Your task to perform on an android device: clear all cookies in the chrome app Image 0: 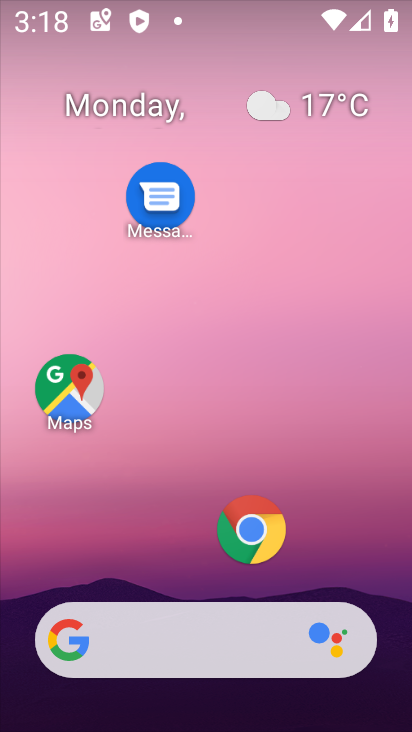
Step 0: click (223, 364)
Your task to perform on an android device: clear all cookies in the chrome app Image 1: 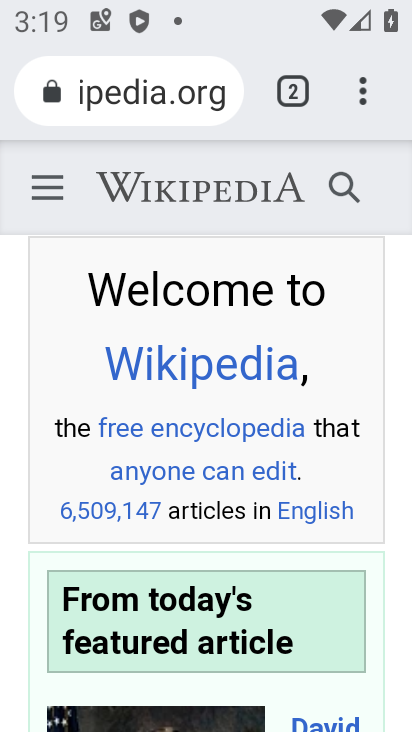
Step 1: click (362, 84)
Your task to perform on an android device: clear all cookies in the chrome app Image 2: 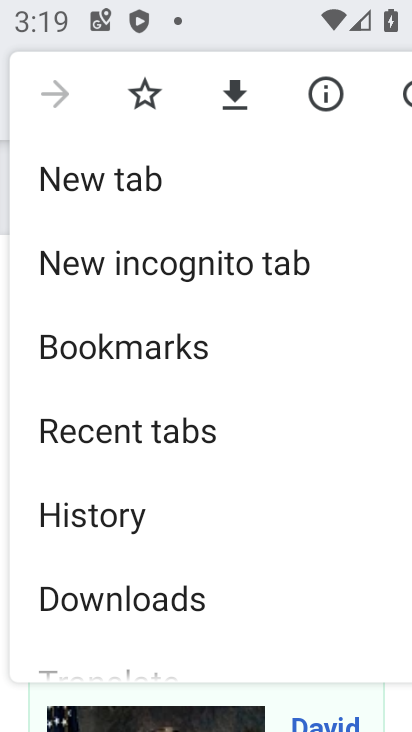
Step 2: click (168, 516)
Your task to perform on an android device: clear all cookies in the chrome app Image 3: 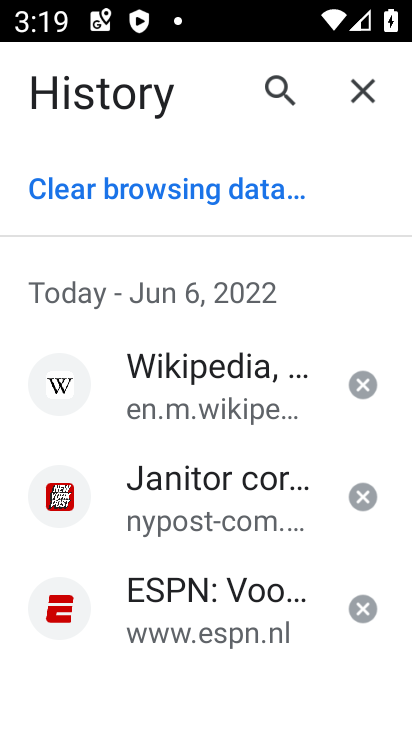
Step 3: click (158, 188)
Your task to perform on an android device: clear all cookies in the chrome app Image 4: 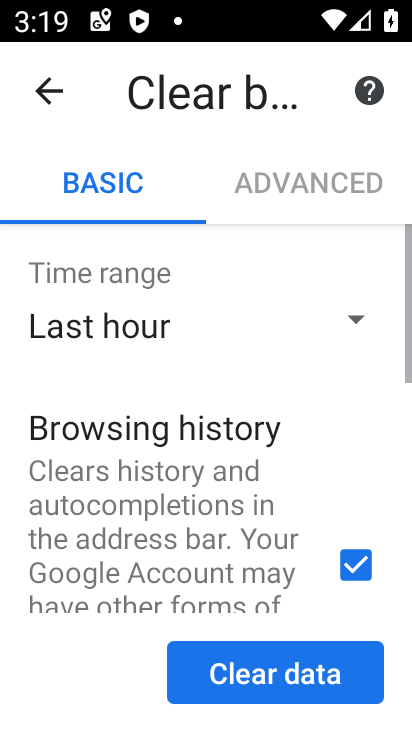
Step 4: drag from (277, 552) to (340, 232)
Your task to perform on an android device: clear all cookies in the chrome app Image 5: 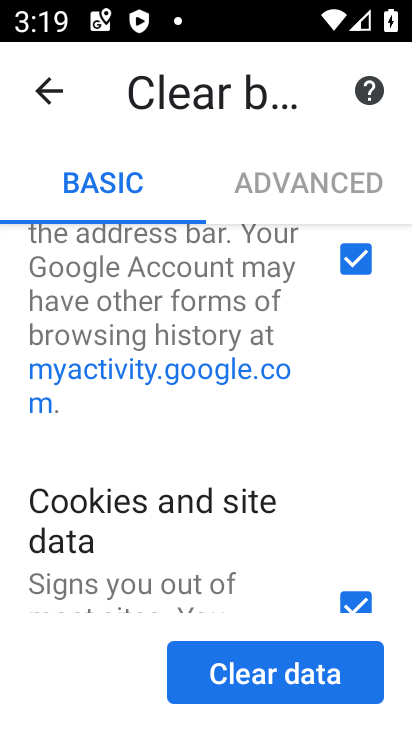
Step 5: drag from (242, 553) to (257, 222)
Your task to perform on an android device: clear all cookies in the chrome app Image 6: 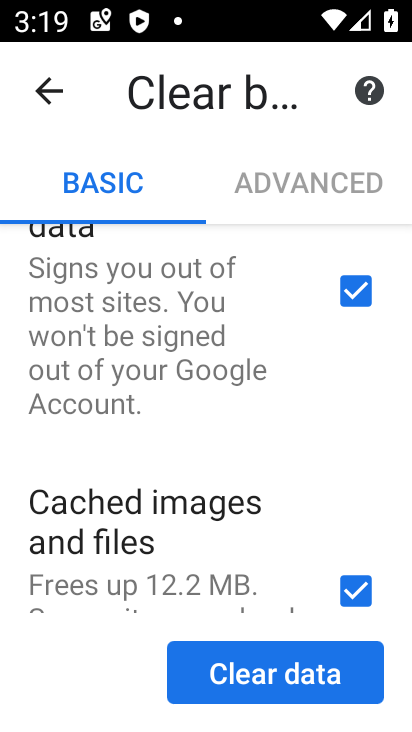
Step 6: drag from (244, 545) to (281, 246)
Your task to perform on an android device: clear all cookies in the chrome app Image 7: 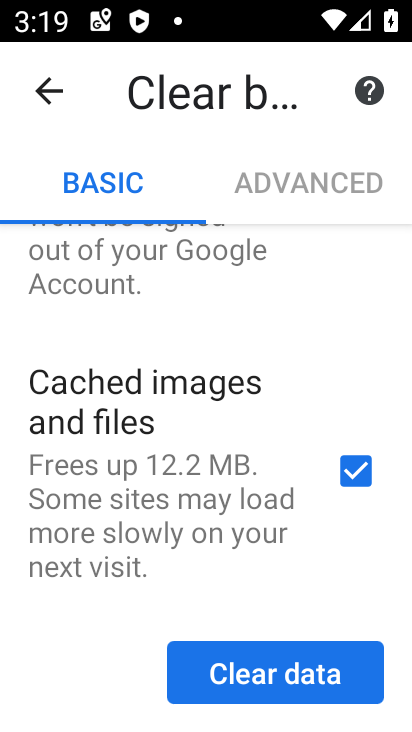
Step 7: click (280, 675)
Your task to perform on an android device: clear all cookies in the chrome app Image 8: 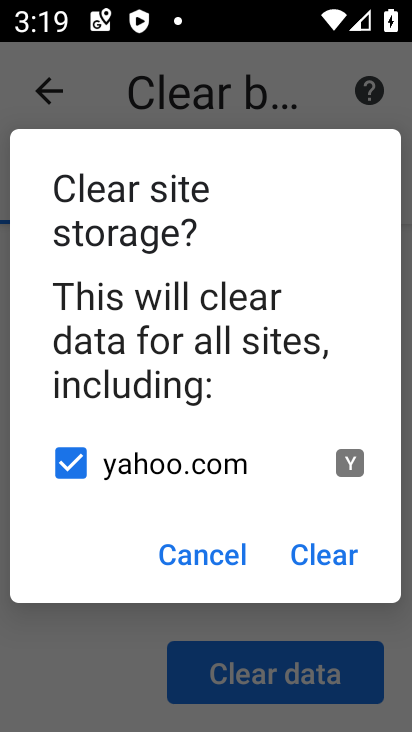
Step 8: click (345, 550)
Your task to perform on an android device: clear all cookies in the chrome app Image 9: 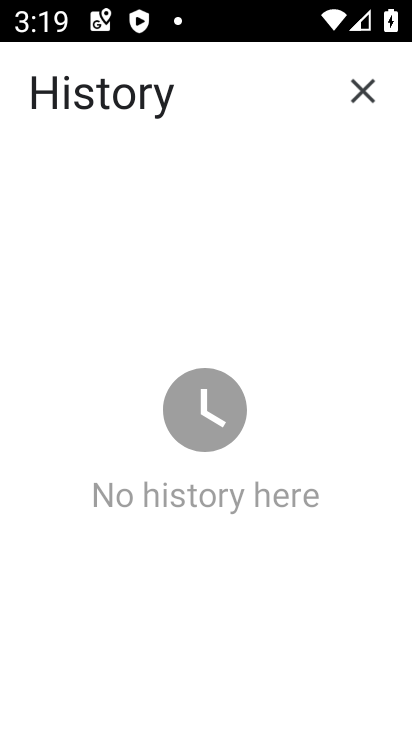
Step 9: task complete